Your task to perform on an android device: Open calendar and show me the first week of next month Image 0: 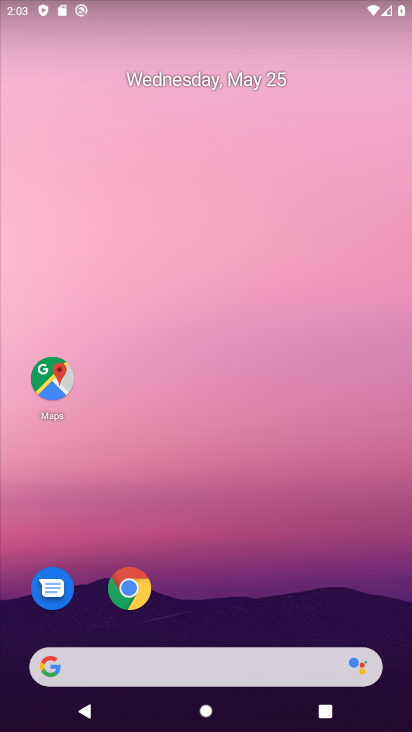
Step 0: drag from (275, 588) to (224, 0)
Your task to perform on an android device: Open calendar and show me the first week of next month Image 1: 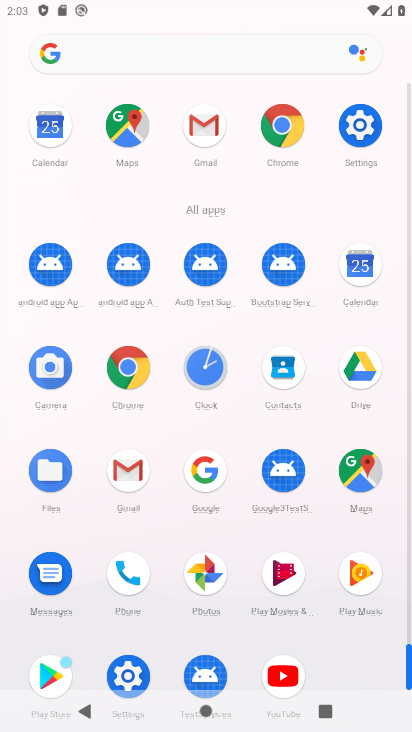
Step 1: drag from (2, 504) to (16, 189)
Your task to perform on an android device: Open calendar and show me the first week of next month Image 2: 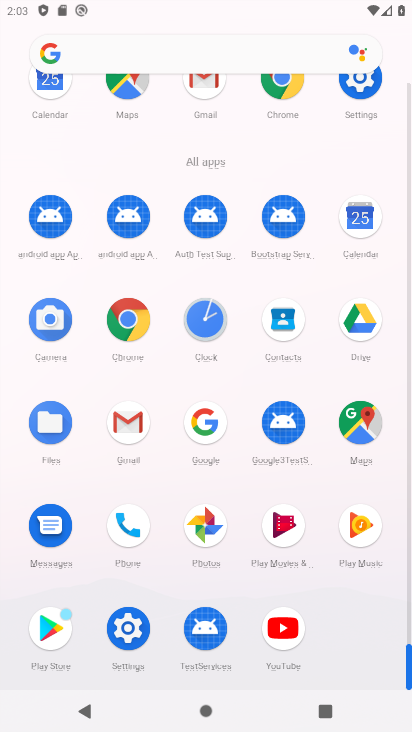
Step 2: drag from (14, 465) to (10, 223)
Your task to perform on an android device: Open calendar and show me the first week of next month Image 3: 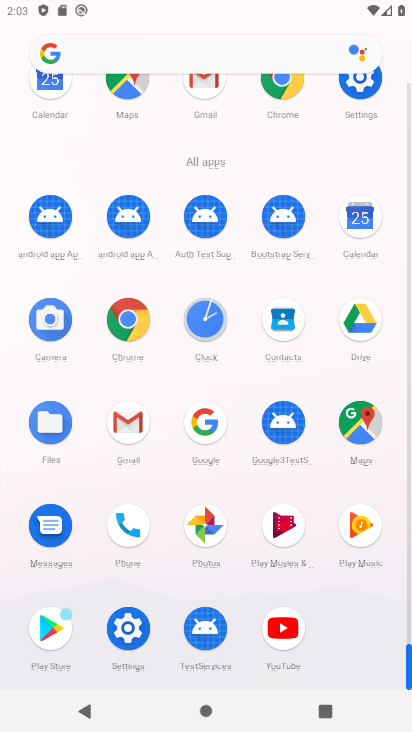
Step 3: click (364, 215)
Your task to perform on an android device: Open calendar and show me the first week of next month Image 4: 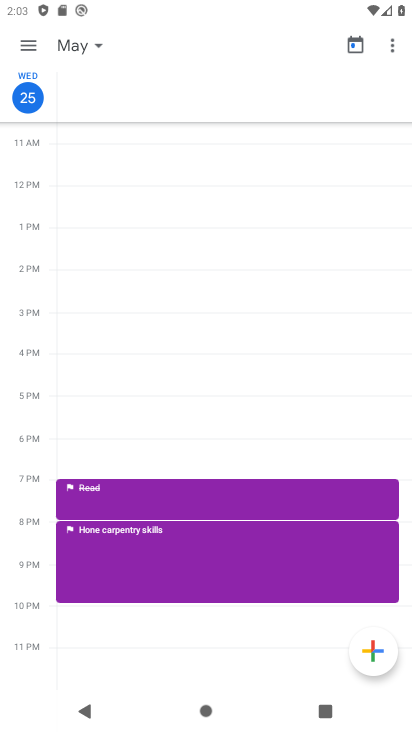
Step 4: click (74, 50)
Your task to perform on an android device: Open calendar and show me the first week of next month Image 5: 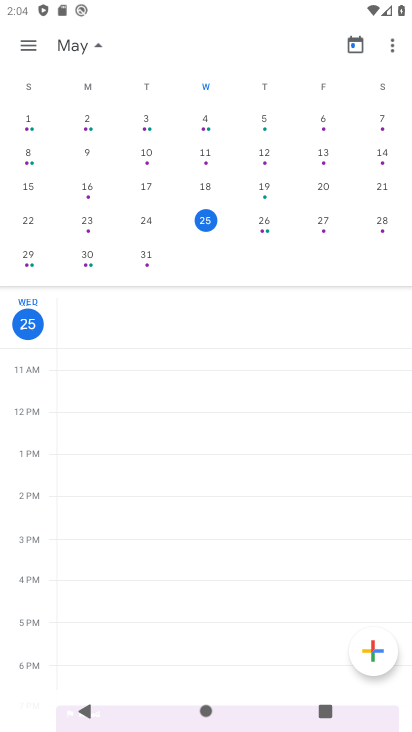
Step 5: drag from (384, 183) to (15, 153)
Your task to perform on an android device: Open calendar and show me the first week of next month Image 6: 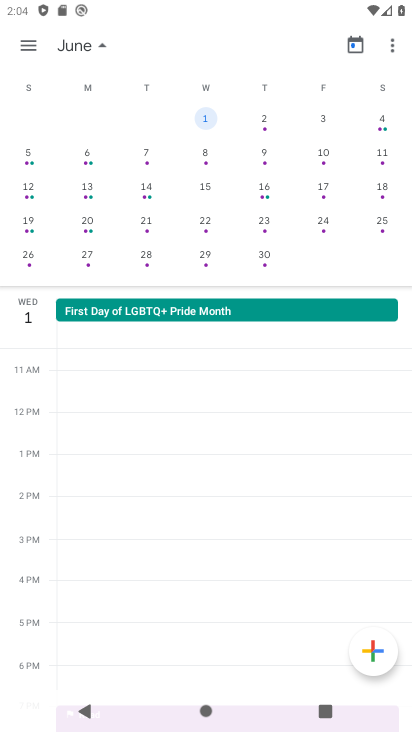
Step 6: click (24, 43)
Your task to perform on an android device: Open calendar and show me the first week of next month Image 7: 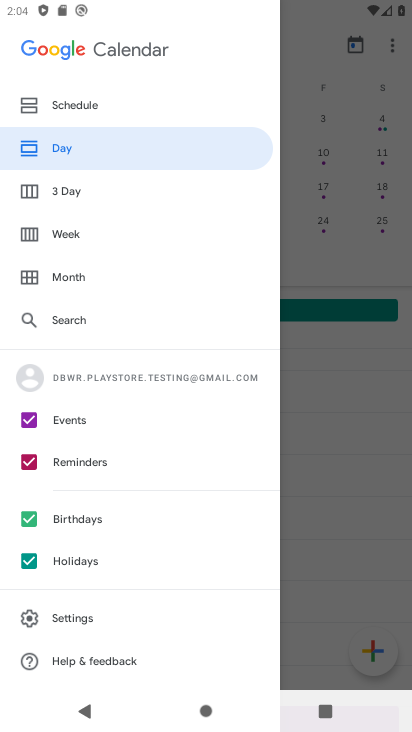
Step 7: click (75, 231)
Your task to perform on an android device: Open calendar and show me the first week of next month Image 8: 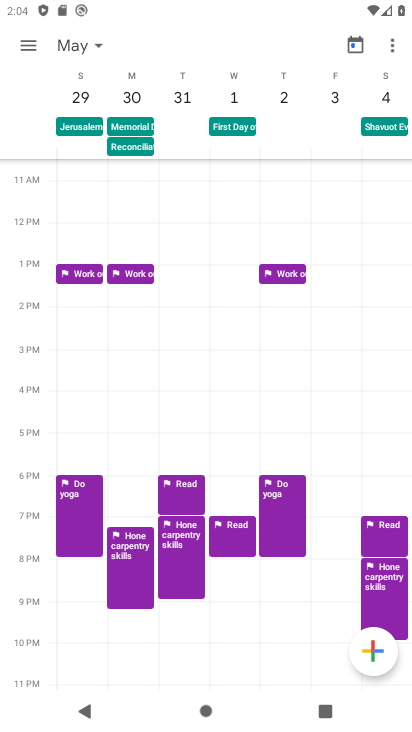
Step 8: task complete